Your task to perform on an android device: install app "YouTube Kids" Image 0: 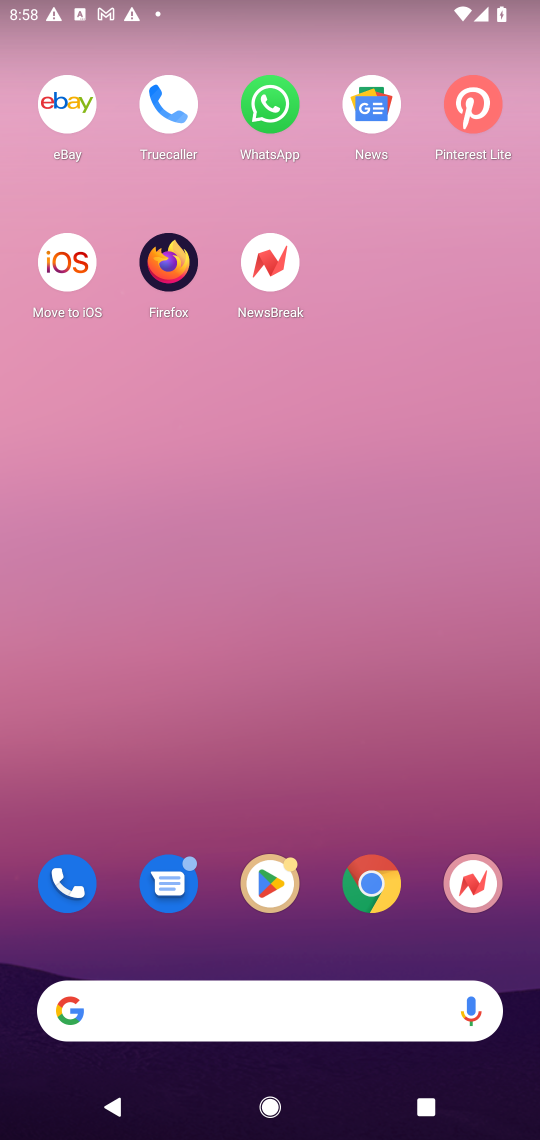
Step 0: click (263, 867)
Your task to perform on an android device: install app "YouTube Kids" Image 1: 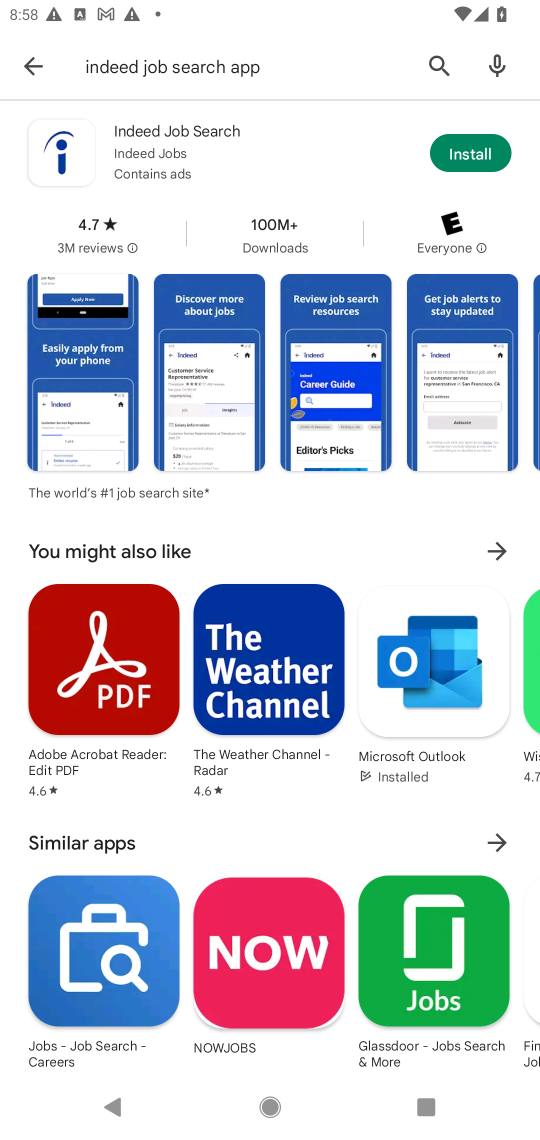
Step 1: click (443, 63)
Your task to perform on an android device: install app "YouTube Kids" Image 2: 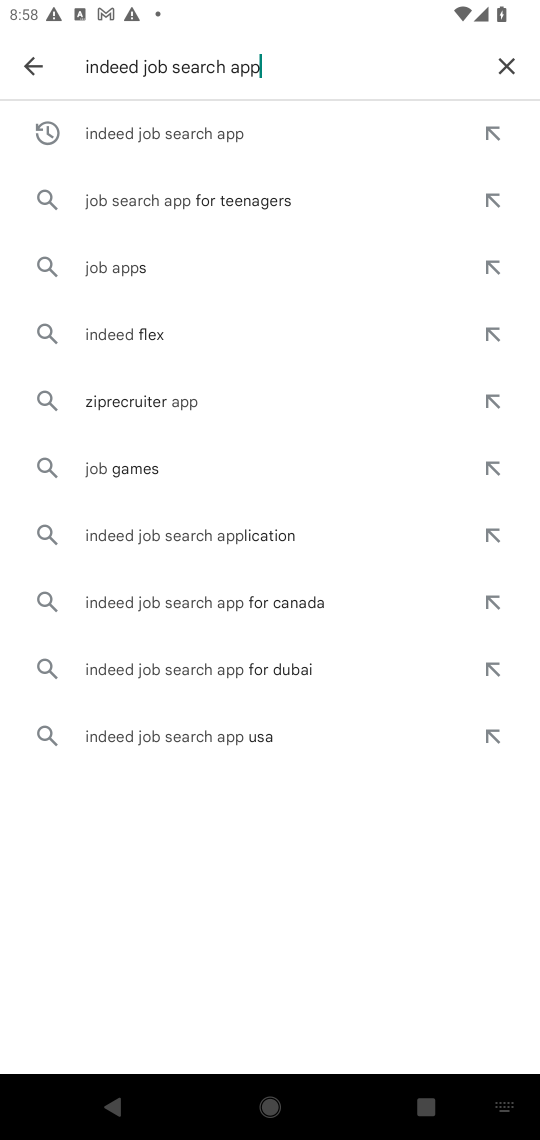
Step 2: click (505, 69)
Your task to perform on an android device: install app "YouTube Kids" Image 3: 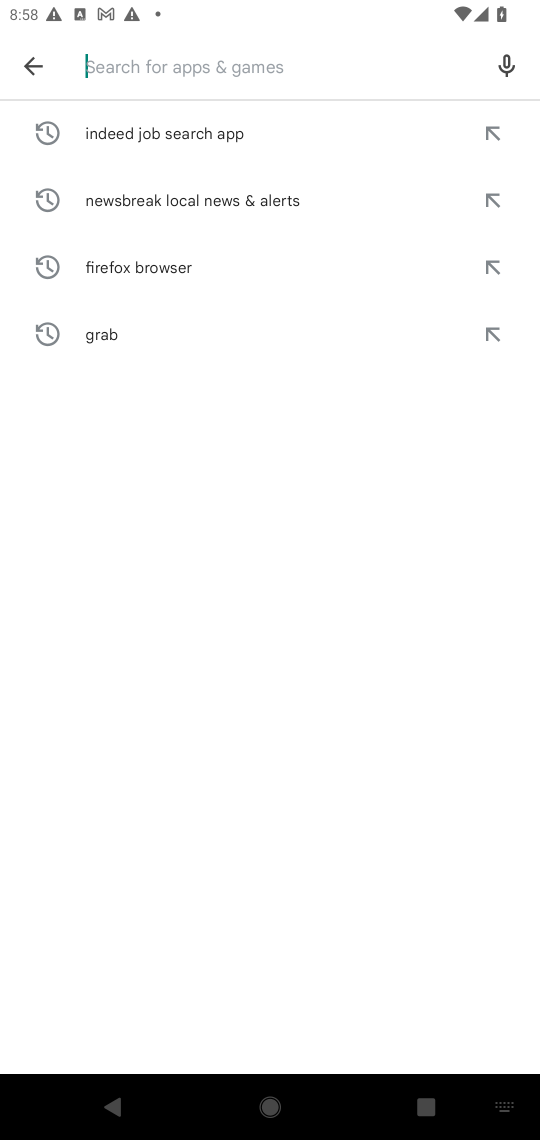
Step 3: type "YouTube Kids"
Your task to perform on an android device: install app "YouTube Kids" Image 4: 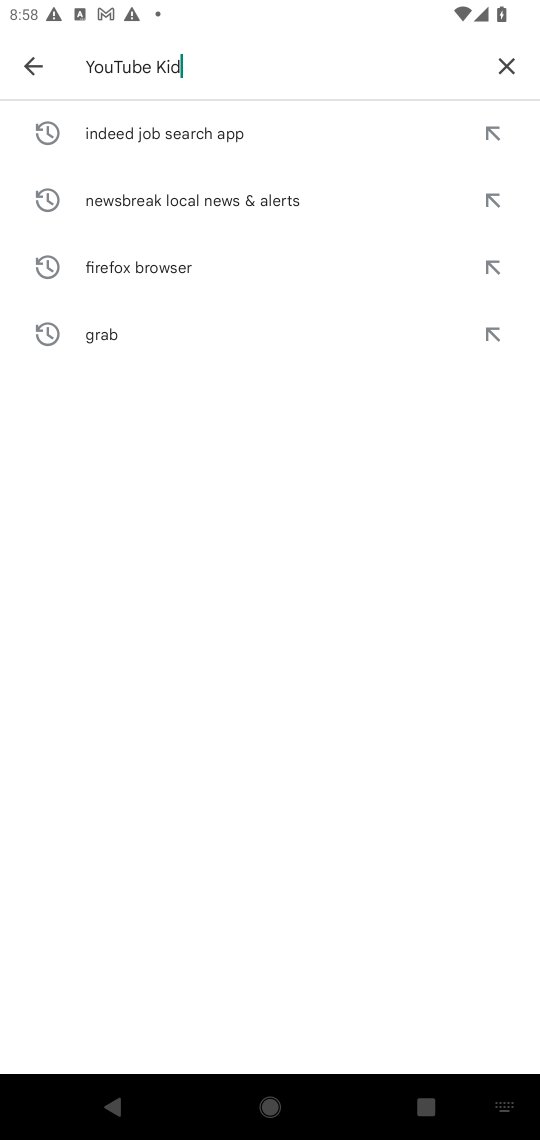
Step 4: type ""
Your task to perform on an android device: install app "YouTube Kids" Image 5: 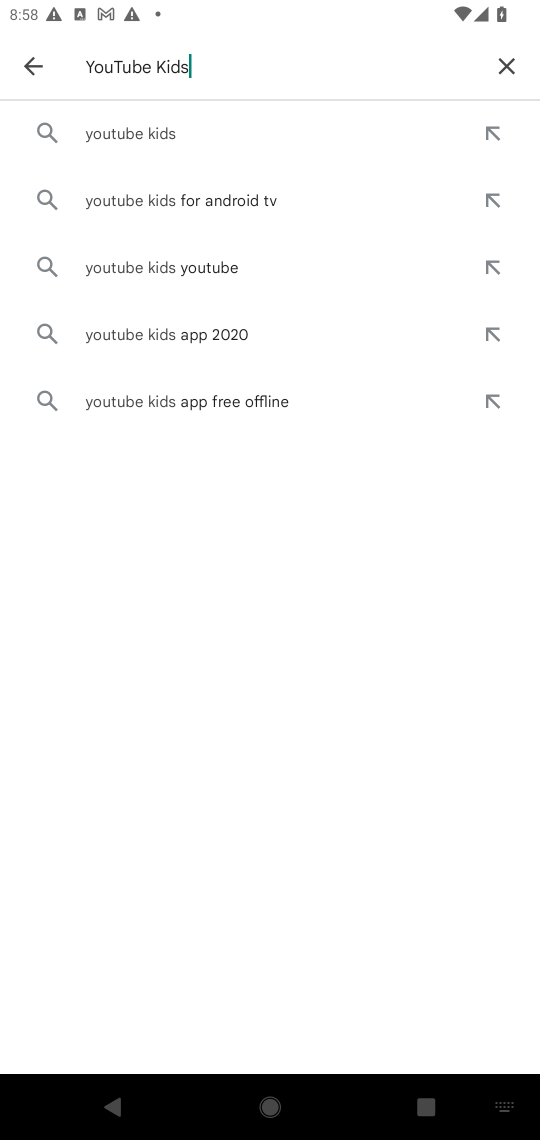
Step 5: click (158, 133)
Your task to perform on an android device: install app "YouTube Kids" Image 6: 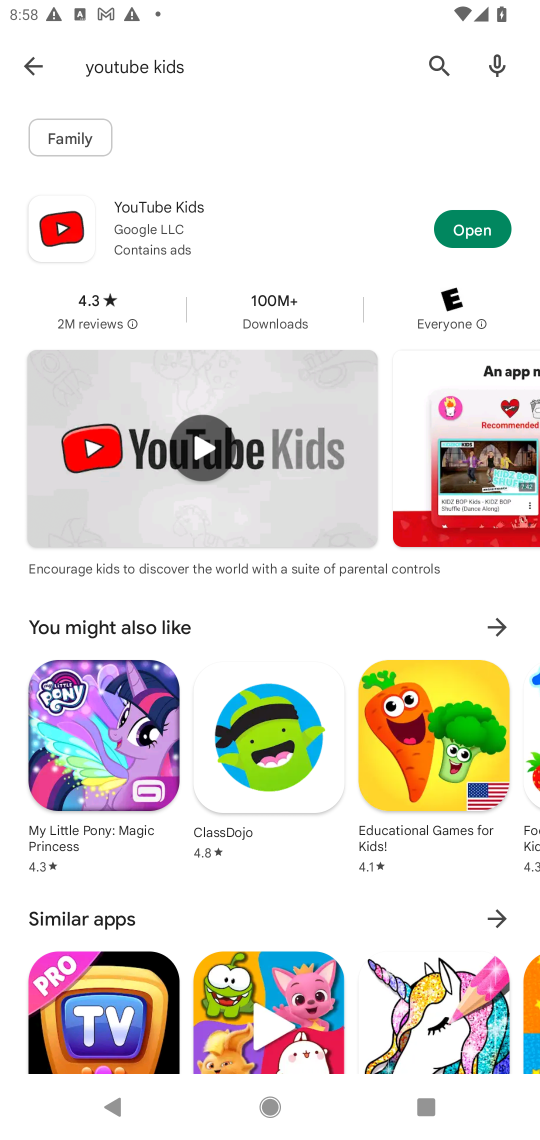
Step 6: task complete